Your task to perform on an android device: Open sound settings Image 0: 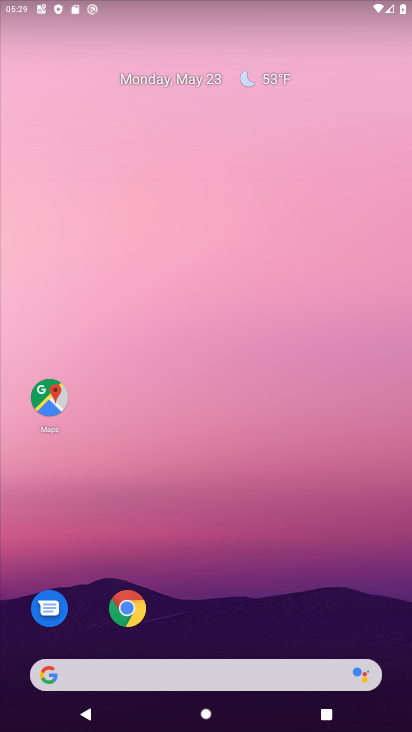
Step 0: drag from (233, 623) to (211, 8)
Your task to perform on an android device: Open sound settings Image 1: 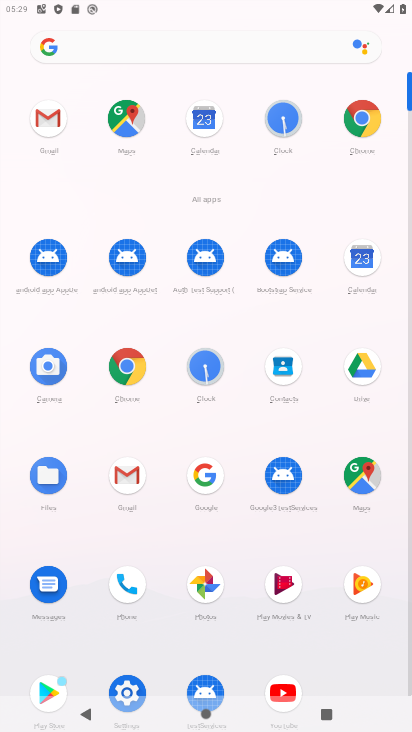
Step 1: click (127, 685)
Your task to perform on an android device: Open sound settings Image 2: 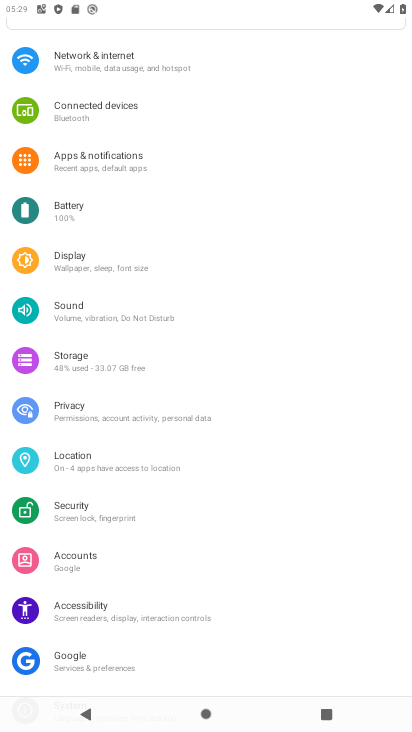
Step 2: click (108, 317)
Your task to perform on an android device: Open sound settings Image 3: 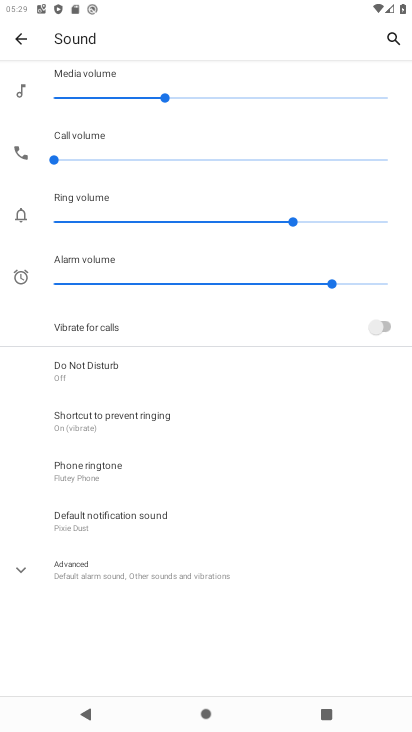
Step 3: task complete